Your task to perform on an android device: Show me popular videos on Youtube Image 0: 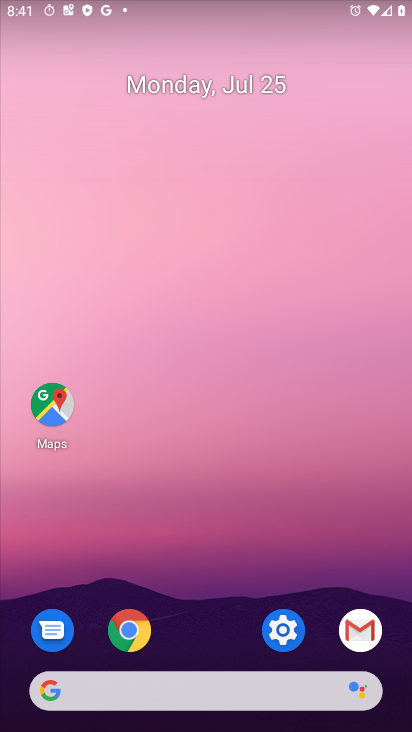
Step 0: drag from (264, 703) to (299, 57)
Your task to perform on an android device: Show me popular videos on Youtube Image 1: 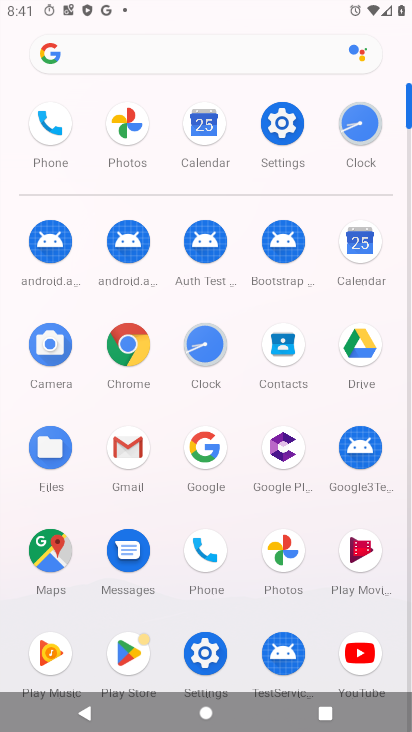
Step 1: click (360, 656)
Your task to perform on an android device: Show me popular videos on Youtube Image 2: 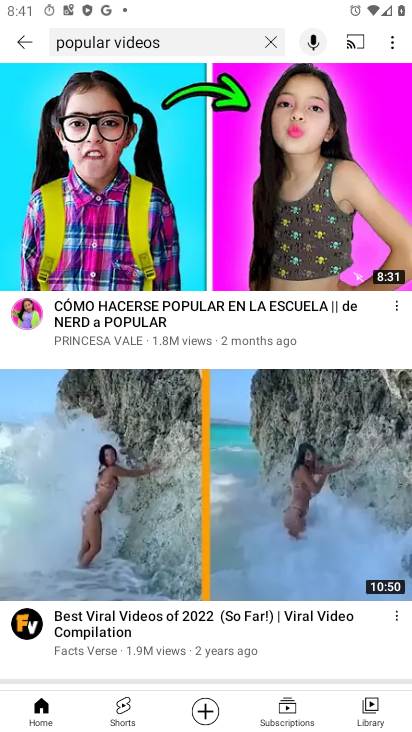
Step 2: click (196, 44)
Your task to perform on an android device: Show me popular videos on Youtube Image 3: 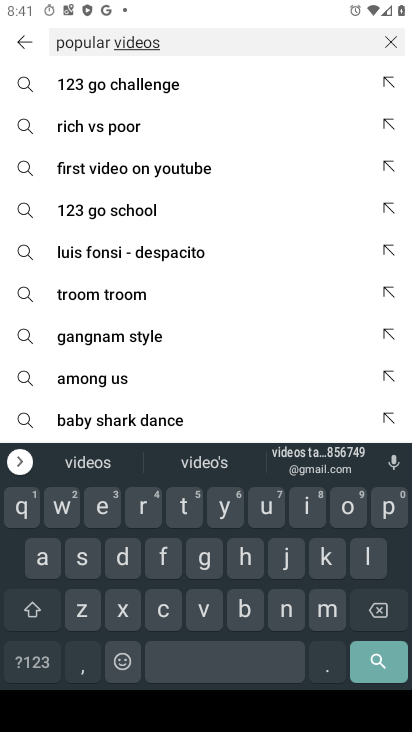
Step 3: click (382, 673)
Your task to perform on an android device: Show me popular videos on Youtube Image 4: 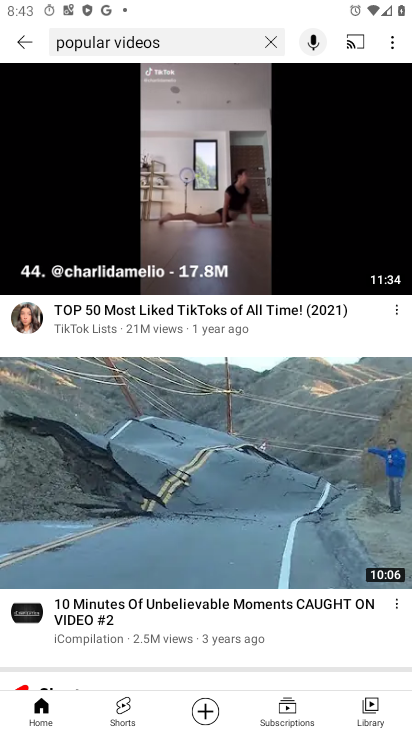
Step 4: task complete